Your task to perform on an android device: change keyboard looks Image 0: 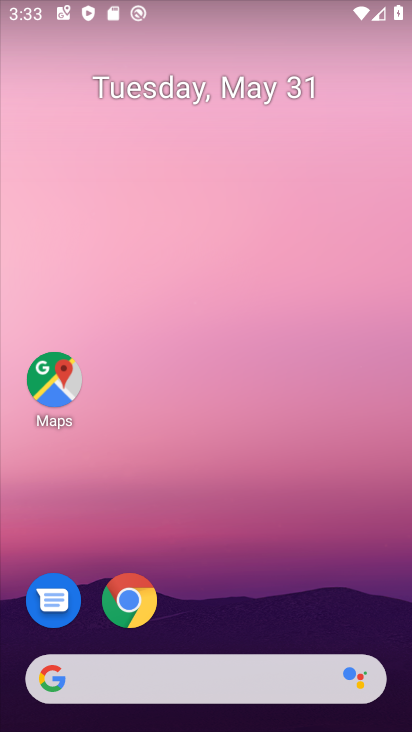
Step 0: click (216, 36)
Your task to perform on an android device: change keyboard looks Image 1: 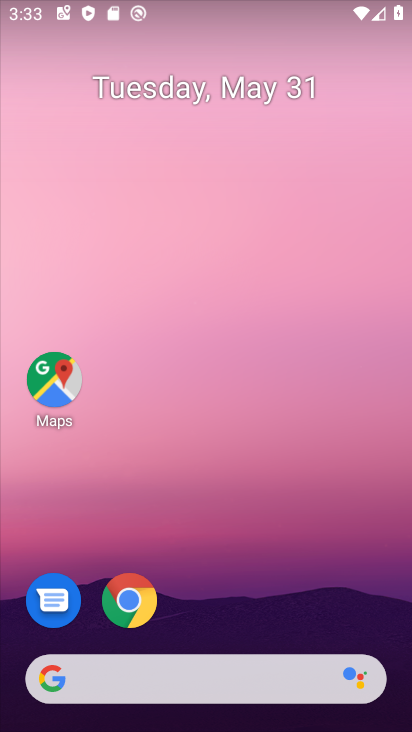
Step 1: drag from (220, 636) to (226, 60)
Your task to perform on an android device: change keyboard looks Image 2: 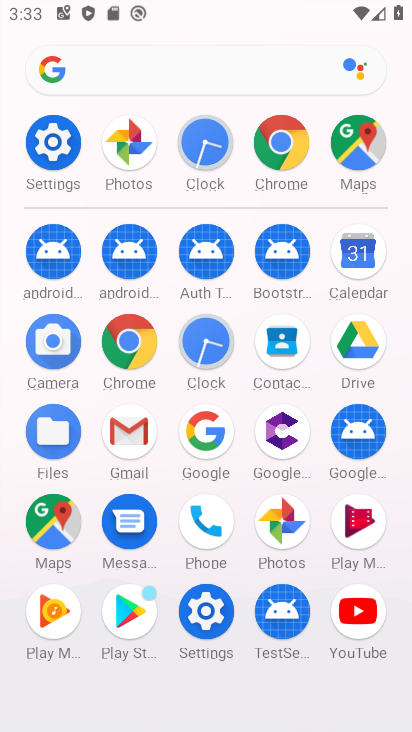
Step 2: click (51, 140)
Your task to perform on an android device: change keyboard looks Image 3: 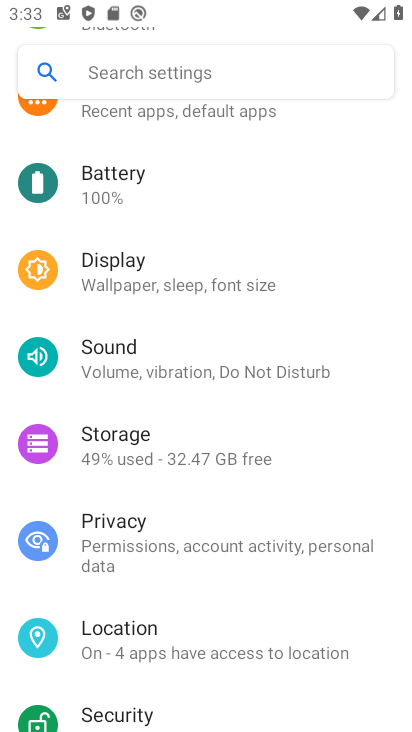
Step 3: drag from (173, 667) to (206, 144)
Your task to perform on an android device: change keyboard looks Image 4: 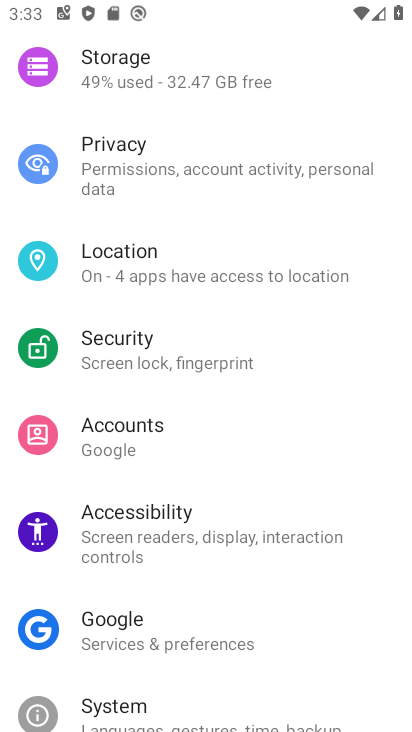
Step 4: click (171, 704)
Your task to perform on an android device: change keyboard looks Image 5: 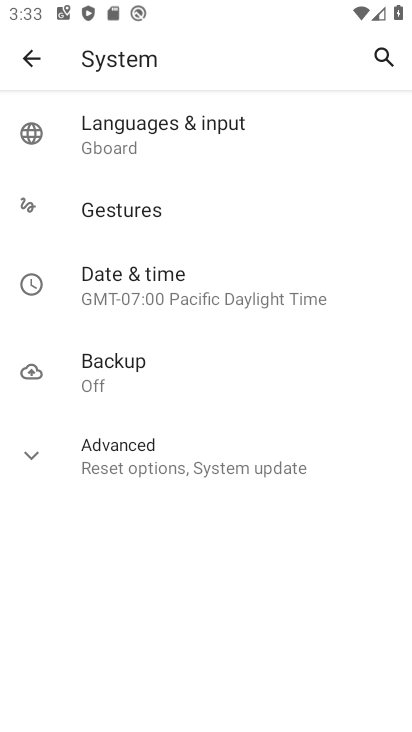
Step 5: click (131, 130)
Your task to perform on an android device: change keyboard looks Image 6: 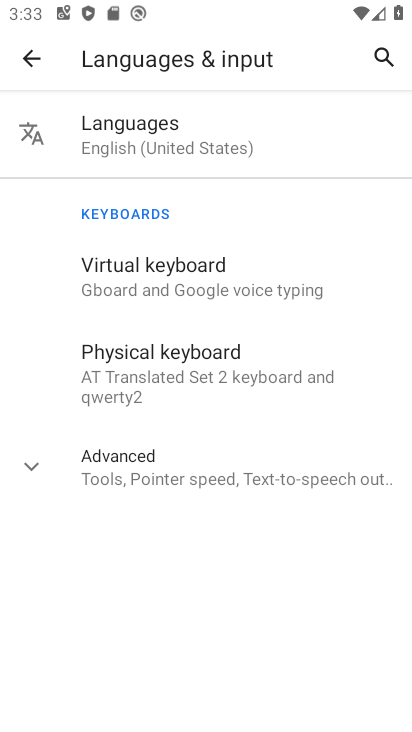
Step 6: click (66, 270)
Your task to perform on an android device: change keyboard looks Image 7: 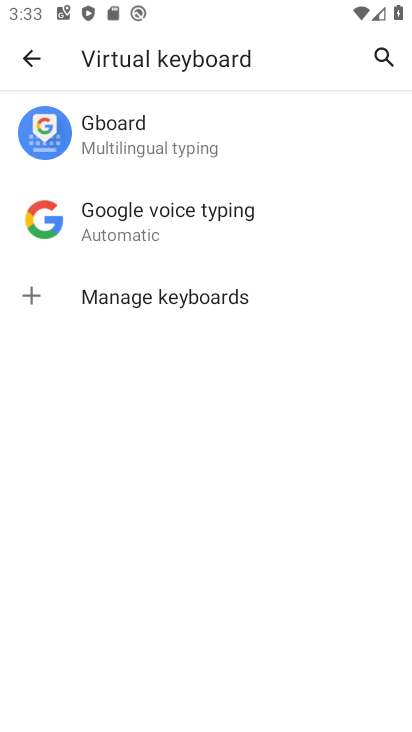
Step 7: click (160, 125)
Your task to perform on an android device: change keyboard looks Image 8: 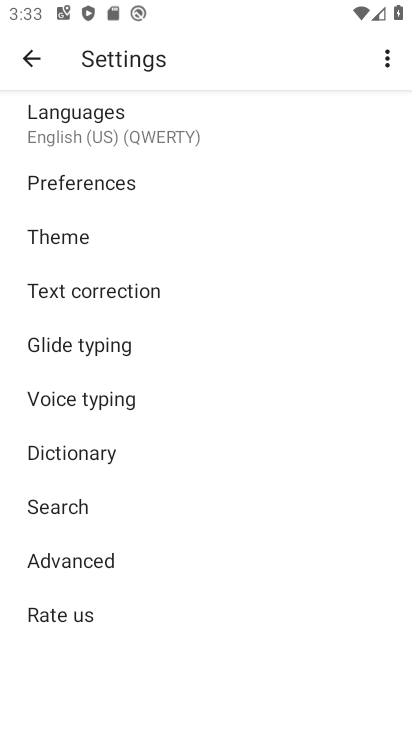
Step 8: click (104, 236)
Your task to perform on an android device: change keyboard looks Image 9: 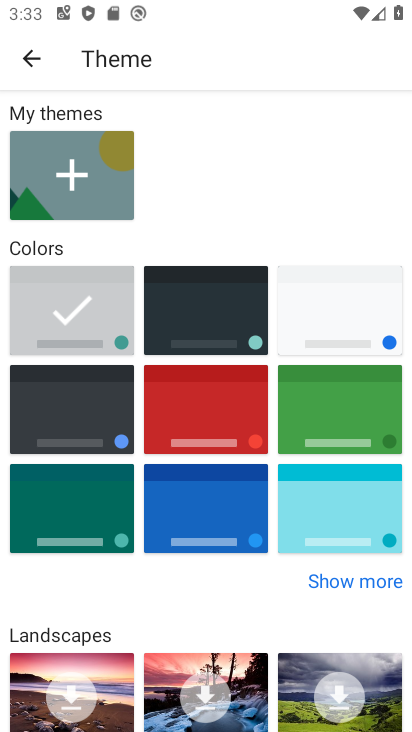
Step 9: click (214, 409)
Your task to perform on an android device: change keyboard looks Image 10: 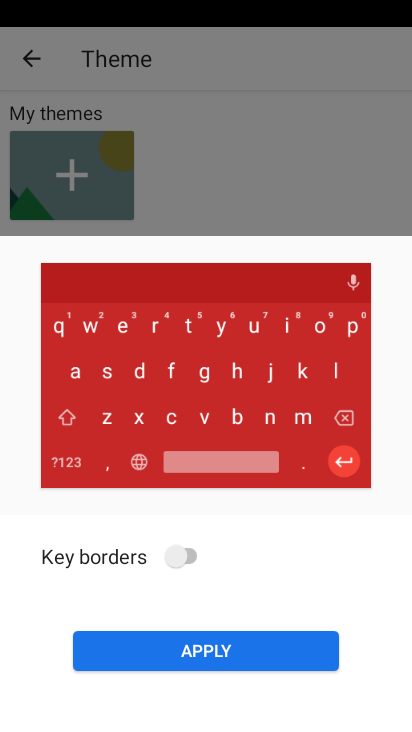
Step 10: click (212, 656)
Your task to perform on an android device: change keyboard looks Image 11: 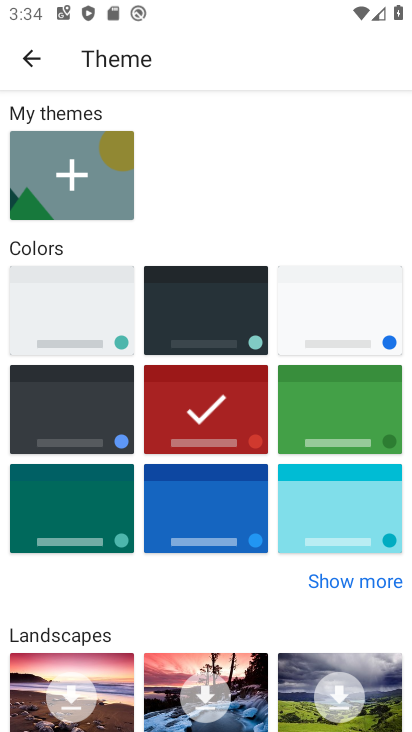
Step 11: task complete